Your task to perform on an android device: Open eBay Image 0: 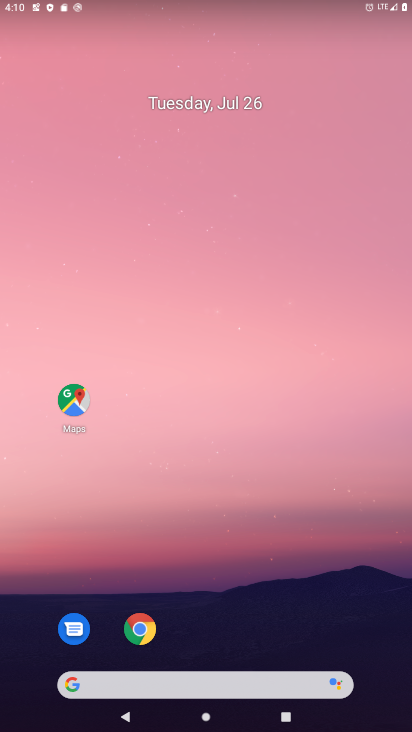
Step 0: click (143, 629)
Your task to perform on an android device: Open eBay Image 1: 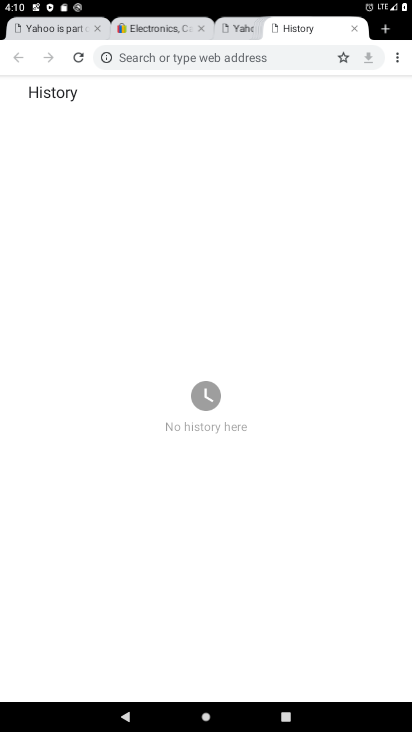
Step 1: click (397, 62)
Your task to perform on an android device: Open eBay Image 2: 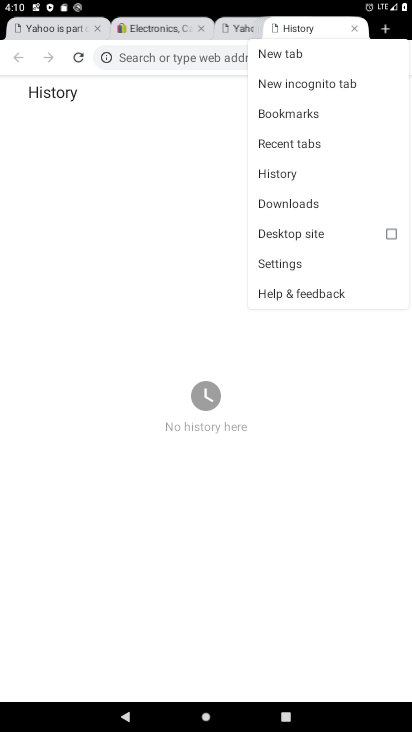
Step 2: click (281, 52)
Your task to perform on an android device: Open eBay Image 3: 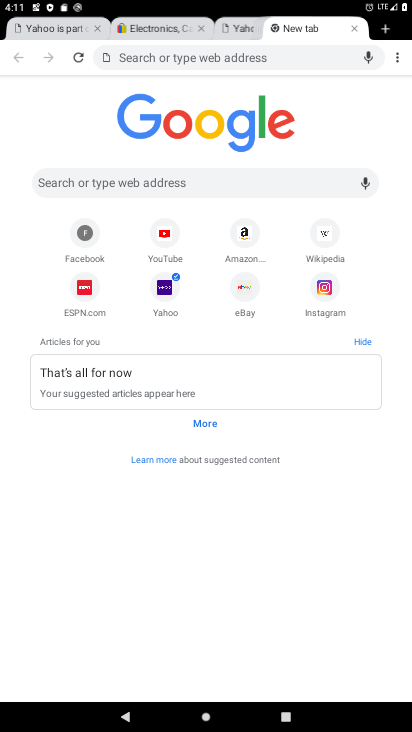
Step 3: click (243, 280)
Your task to perform on an android device: Open eBay Image 4: 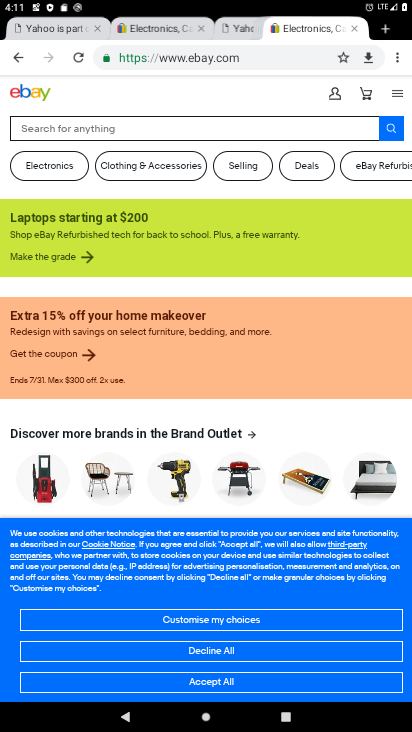
Step 4: task complete